Your task to perform on an android device: search for starred emails in the gmail app Image 0: 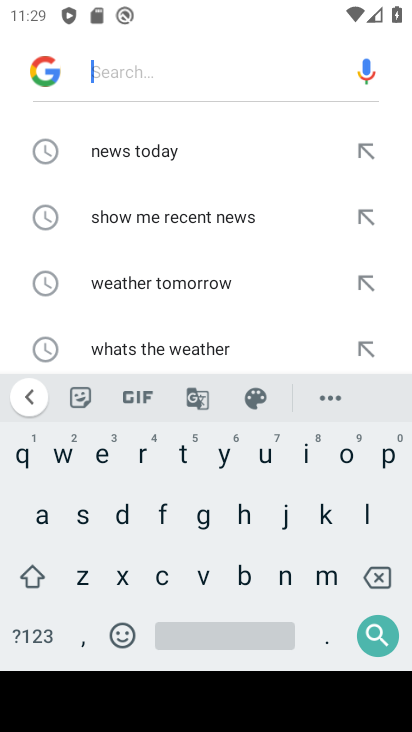
Step 0: press home button
Your task to perform on an android device: search for starred emails in the gmail app Image 1: 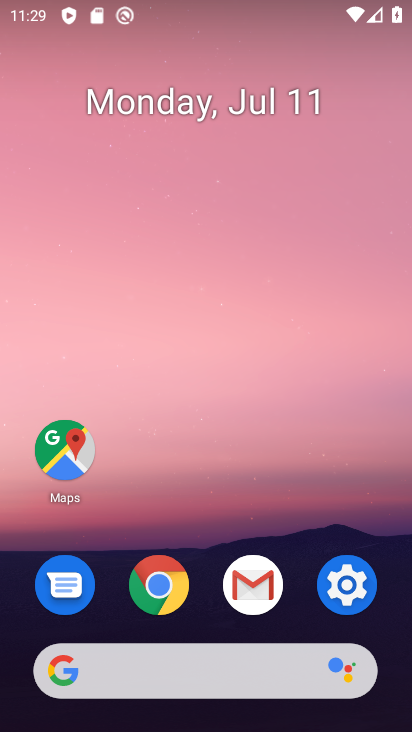
Step 1: drag from (290, 493) to (282, 240)
Your task to perform on an android device: search for starred emails in the gmail app Image 2: 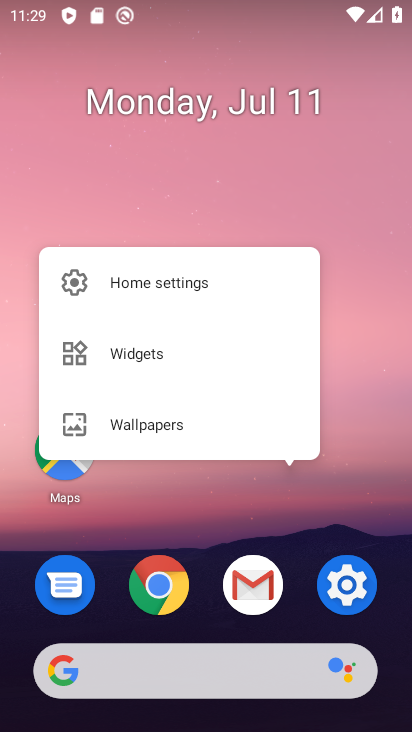
Step 2: click (239, 583)
Your task to perform on an android device: search for starred emails in the gmail app Image 3: 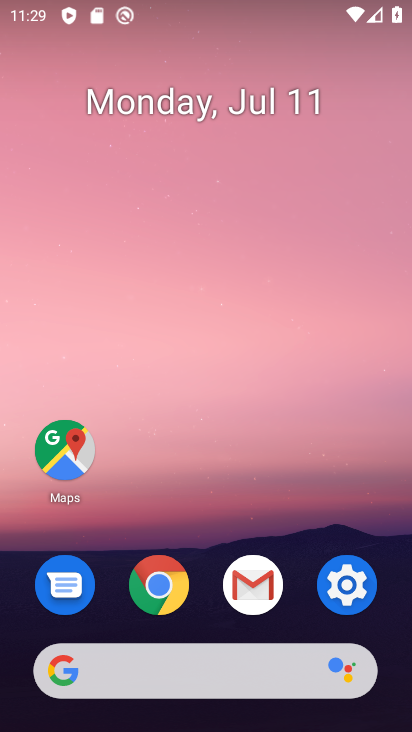
Step 3: click (254, 589)
Your task to perform on an android device: search for starred emails in the gmail app Image 4: 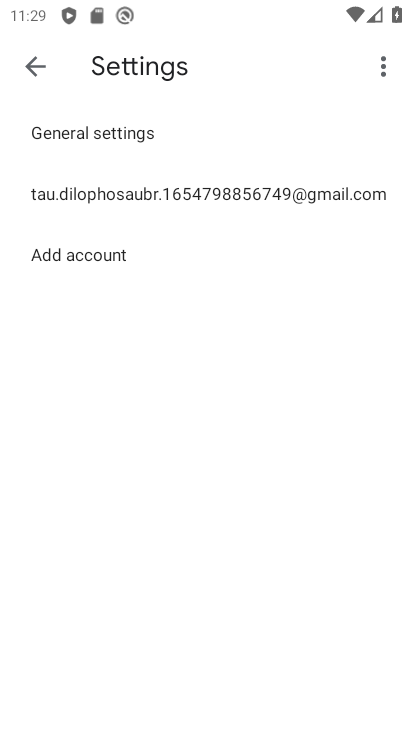
Step 4: click (31, 67)
Your task to perform on an android device: search for starred emails in the gmail app Image 5: 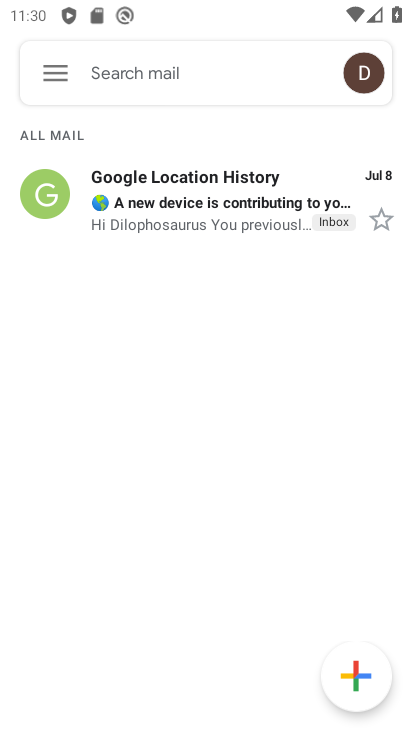
Step 5: click (58, 80)
Your task to perform on an android device: search for starred emails in the gmail app Image 6: 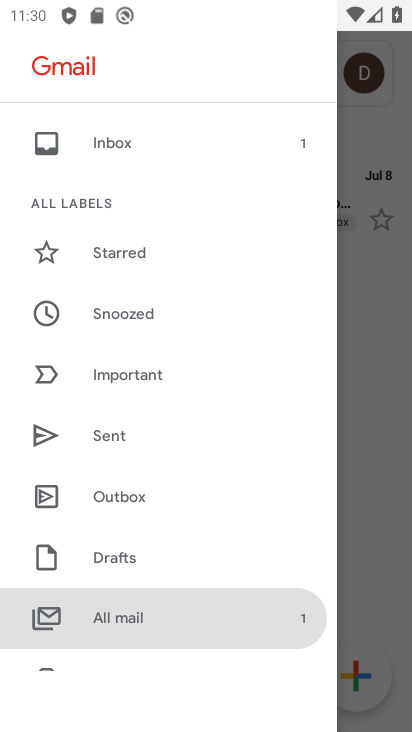
Step 6: click (157, 253)
Your task to perform on an android device: search for starred emails in the gmail app Image 7: 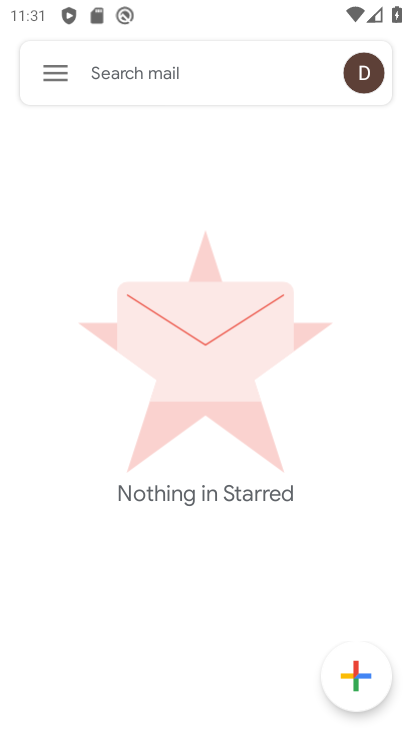
Step 7: task complete